Your task to perform on an android device: turn off notifications in google photos Image 0: 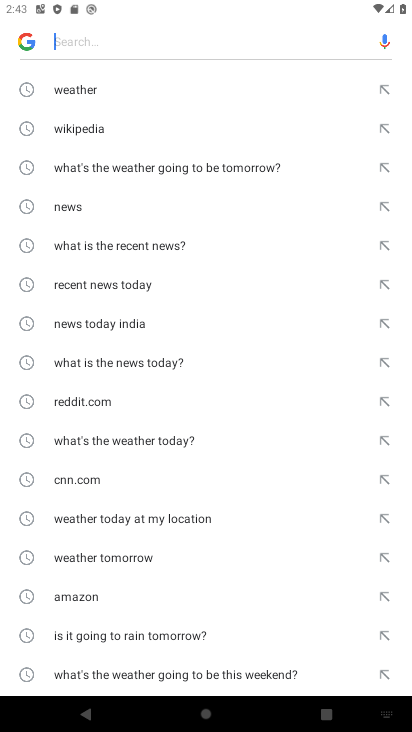
Step 0: press home button
Your task to perform on an android device: turn off notifications in google photos Image 1: 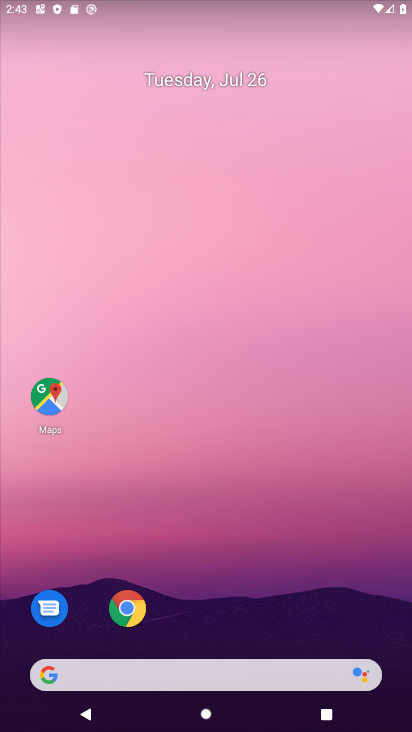
Step 1: drag from (261, 607) to (284, 224)
Your task to perform on an android device: turn off notifications in google photos Image 2: 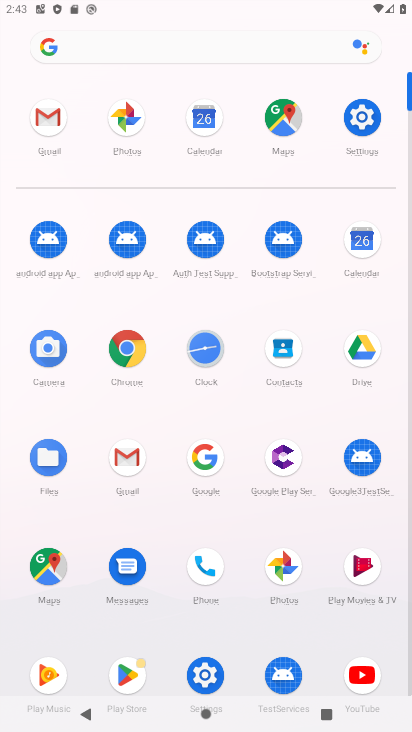
Step 2: click (288, 561)
Your task to perform on an android device: turn off notifications in google photos Image 3: 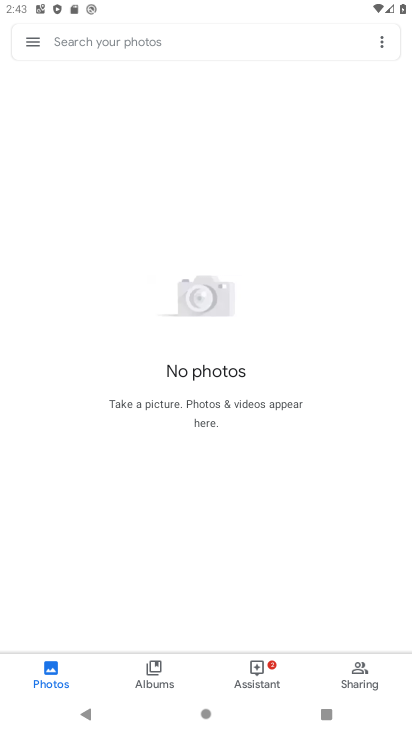
Step 3: task complete